Your task to perform on an android device: find which apps use the phone's location Image 0: 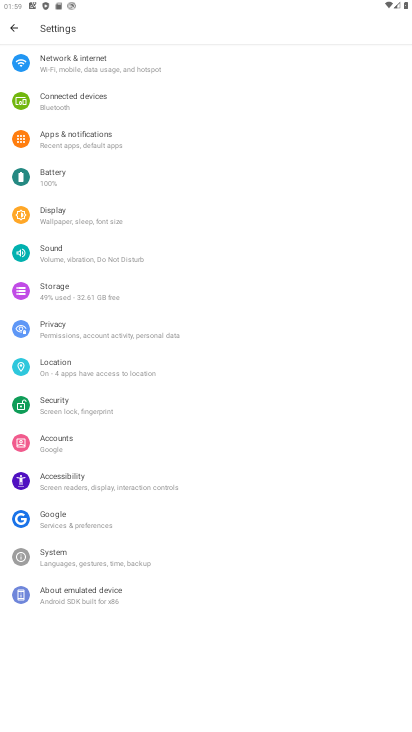
Step 0: click (58, 360)
Your task to perform on an android device: find which apps use the phone's location Image 1: 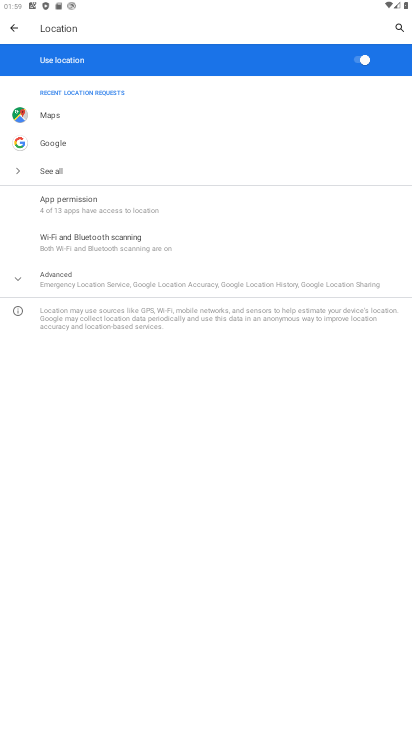
Step 1: click (50, 209)
Your task to perform on an android device: find which apps use the phone's location Image 2: 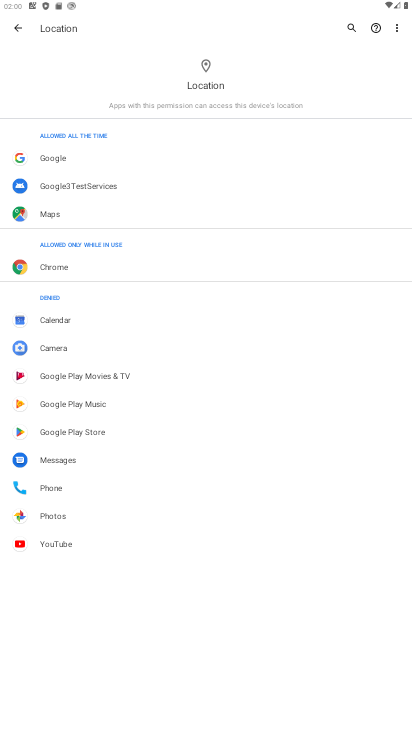
Step 2: task complete